Your task to perform on an android device: Open sound settings Image 0: 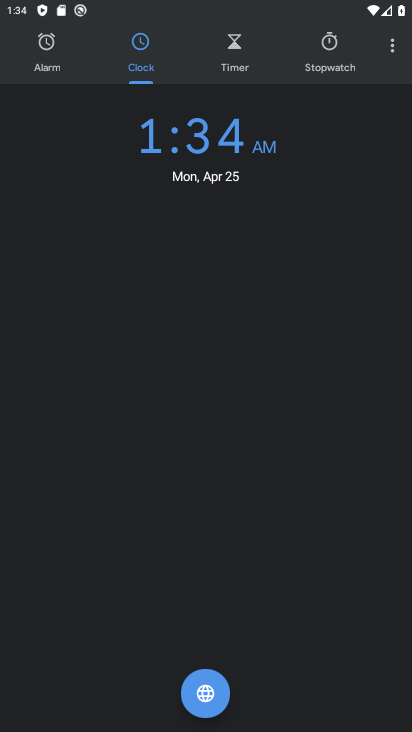
Step 0: press home button
Your task to perform on an android device: Open sound settings Image 1: 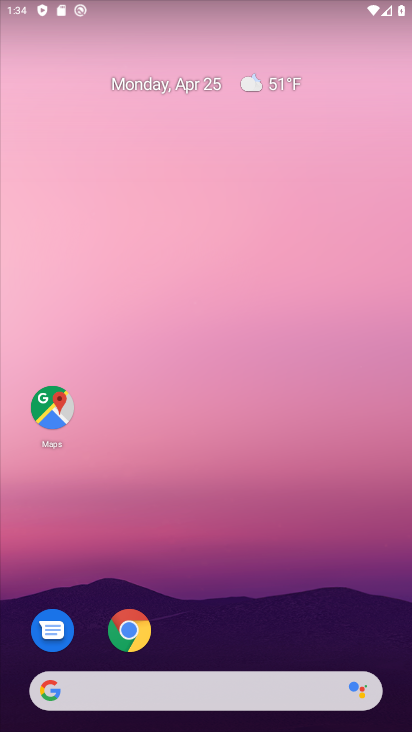
Step 1: drag from (344, 442) to (323, 4)
Your task to perform on an android device: Open sound settings Image 2: 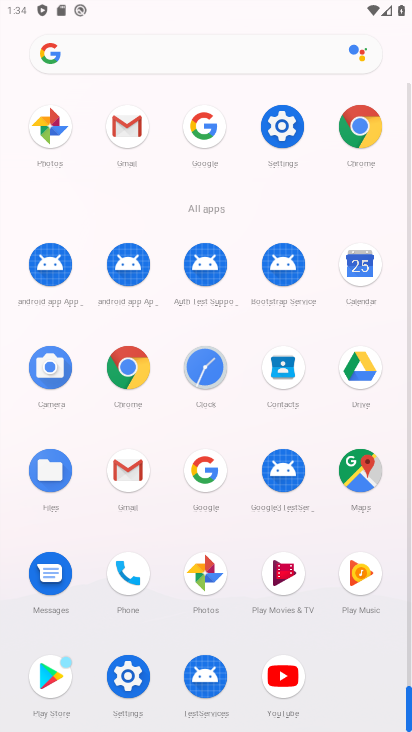
Step 2: click (282, 117)
Your task to perform on an android device: Open sound settings Image 3: 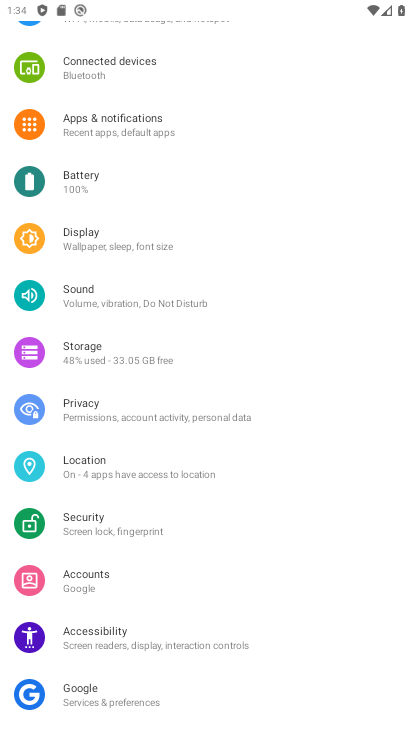
Step 3: click (123, 304)
Your task to perform on an android device: Open sound settings Image 4: 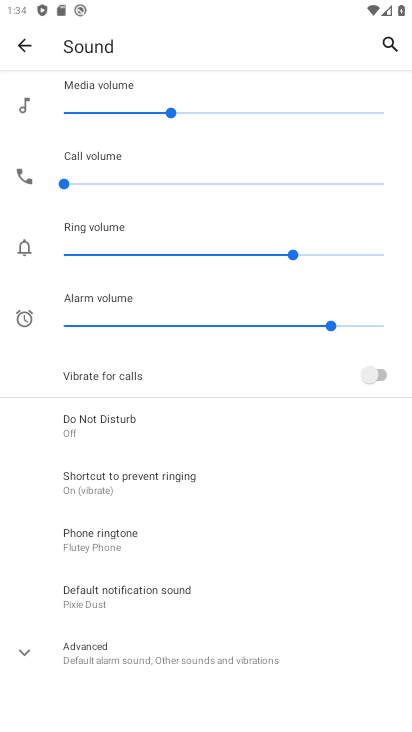
Step 4: task complete